Your task to perform on an android device: turn on showing notifications on the lock screen Image 0: 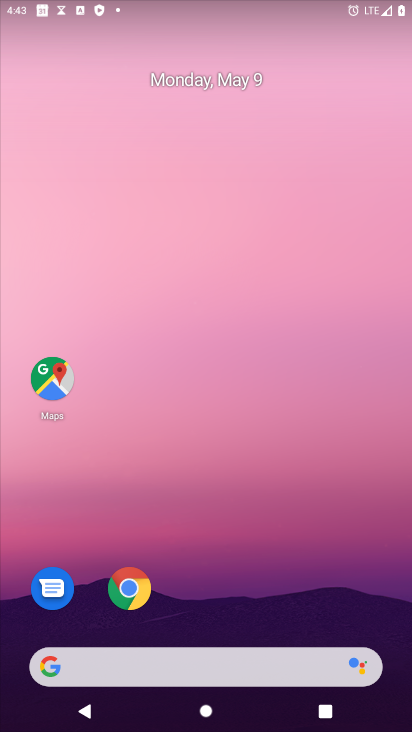
Step 0: drag from (263, 570) to (191, 81)
Your task to perform on an android device: turn on showing notifications on the lock screen Image 1: 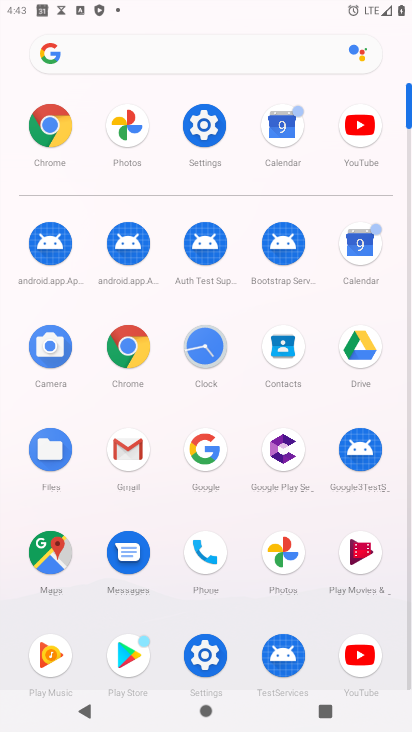
Step 1: click (196, 142)
Your task to perform on an android device: turn on showing notifications on the lock screen Image 2: 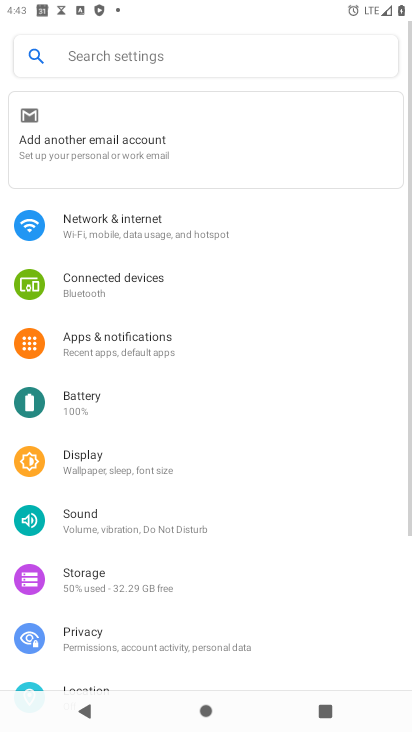
Step 2: click (166, 356)
Your task to perform on an android device: turn on showing notifications on the lock screen Image 3: 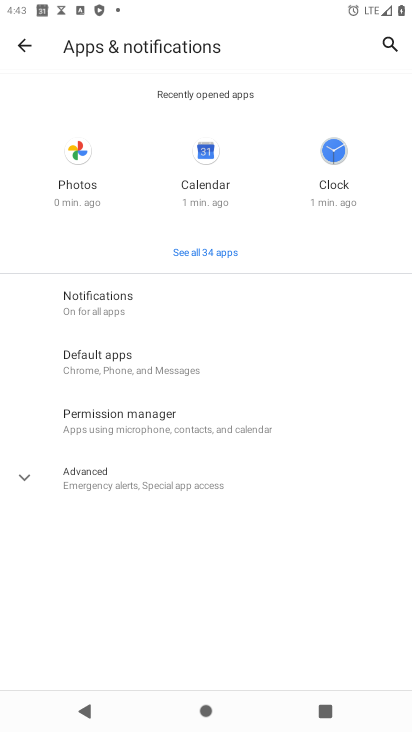
Step 3: click (119, 303)
Your task to perform on an android device: turn on showing notifications on the lock screen Image 4: 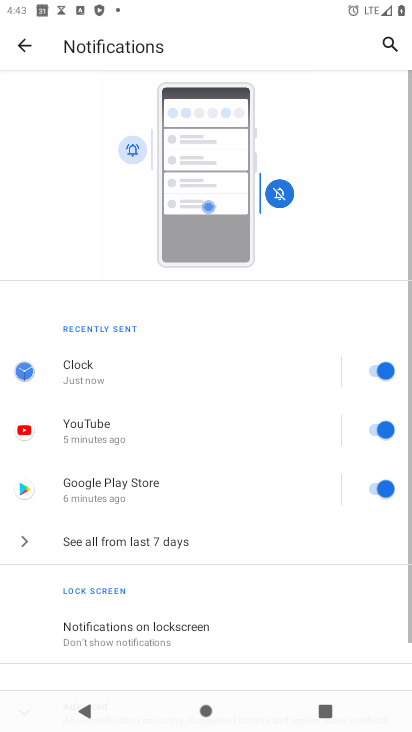
Step 4: click (257, 644)
Your task to perform on an android device: turn on showing notifications on the lock screen Image 5: 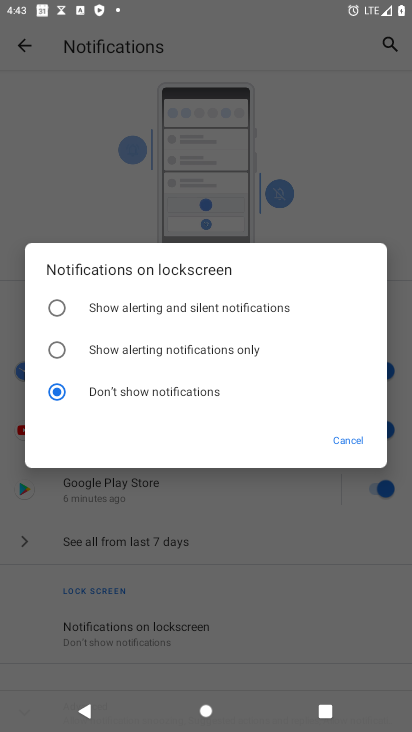
Step 5: click (208, 306)
Your task to perform on an android device: turn on showing notifications on the lock screen Image 6: 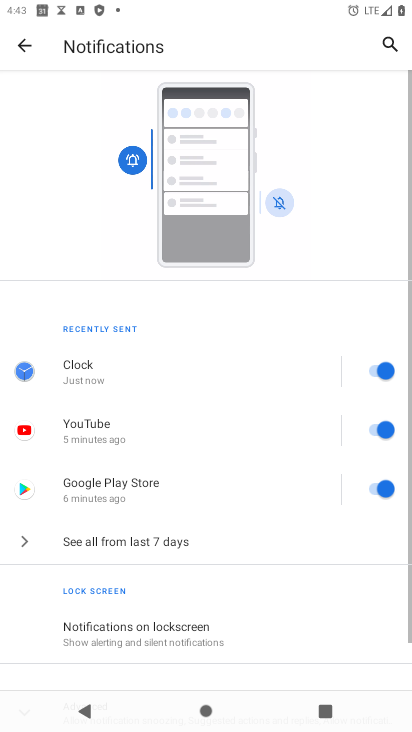
Step 6: task complete